Your task to perform on an android device: toggle javascript in the chrome app Image 0: 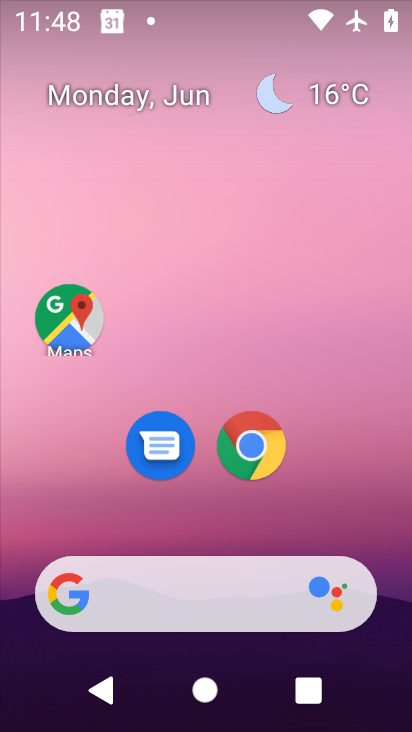
Step 0: click (264, 460)
Your task to perform on an android device: toggle javascript in the chrome app Image 1: 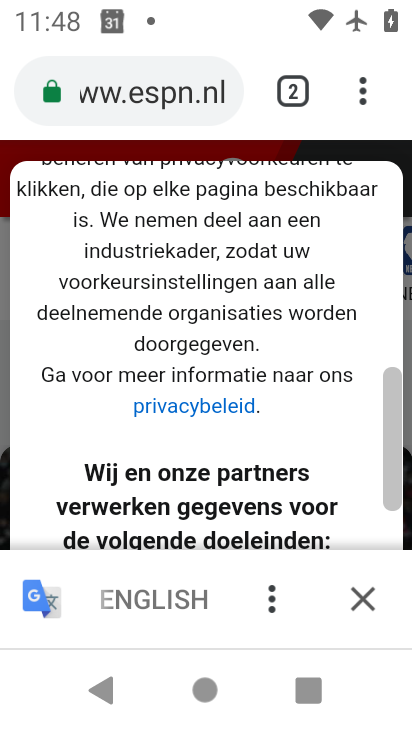
Step 1: drag from (360, 96) to (236, 482)
Your task to perform on an android device: toggle javascript in the chrome app Image 2: 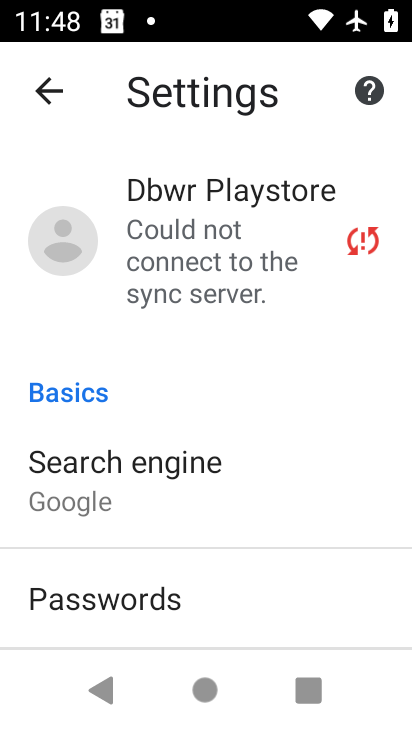
Step 2: drag from (318, 585) to (265, 115)
Your task to perform on an android device: toggle javascript in the chrome app Image 3: 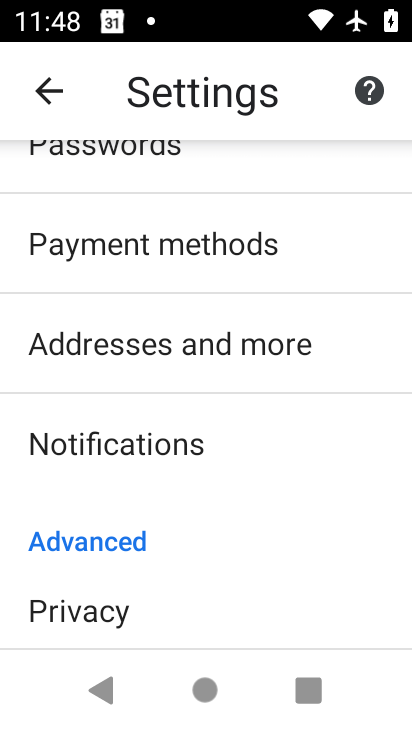
Step 3: drag from (254, 580) to (269, 238)
Your task to perform on an android device: toggle javascript in the chrome app Image 4: 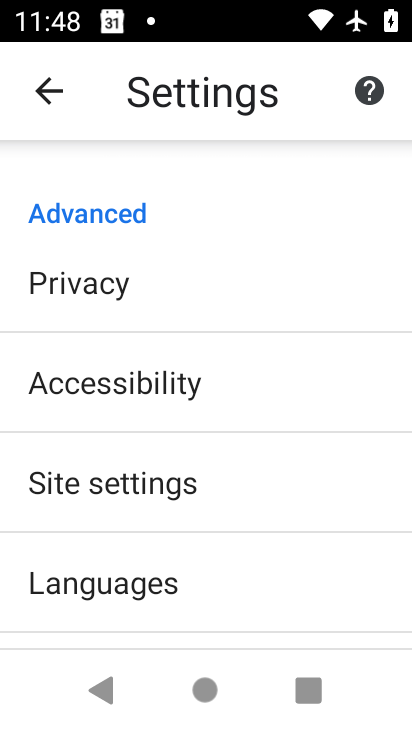
Step 4: click (143, 490)
Your task to perform on an android device: toggle javascript in the chrome app Image 5: 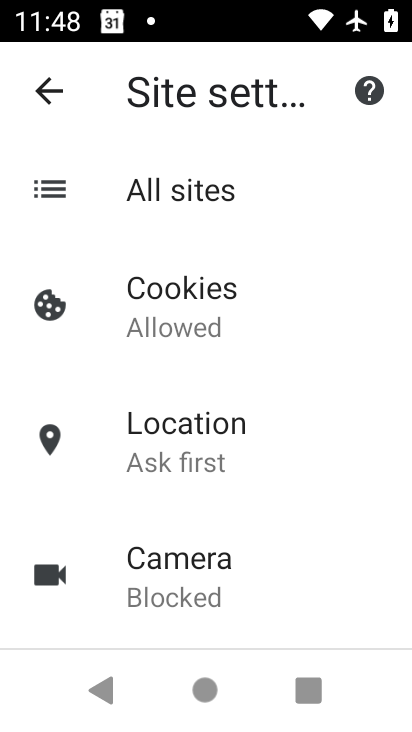
Step 5: drag from (317, 616) to (266, 63)
Your task to perform on an android device: toggle javascript in the chrome app Image 6: 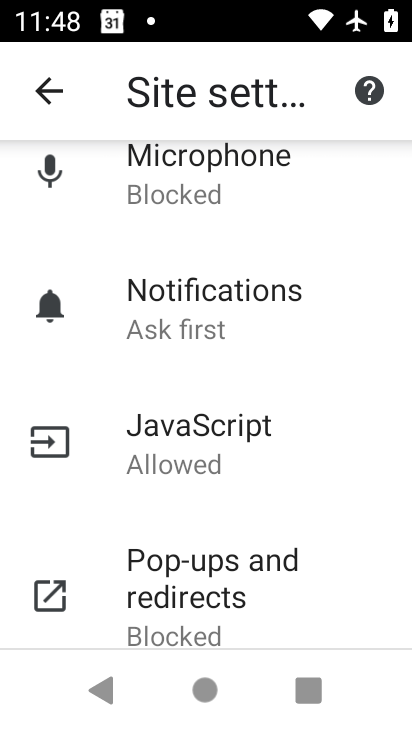
Step 6: click (240, 416)
Your task to perform on an android device: toggle javascript in the chrome app Image 7: 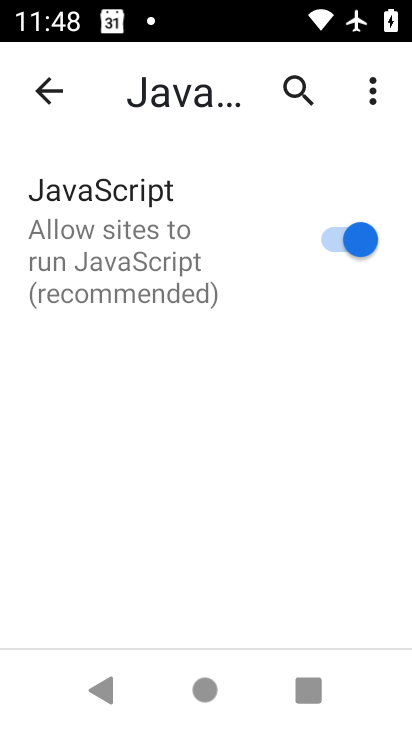
Step 7: click (340, 245)
Your task to perform on an android device: toggle javascript in the chrome app Image 8: 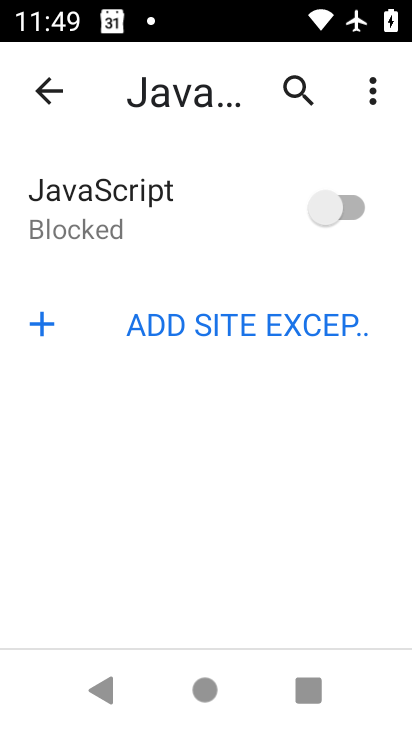
Step 8: task complete